Your task to perform on an android device: Go to Amazon Image 0: 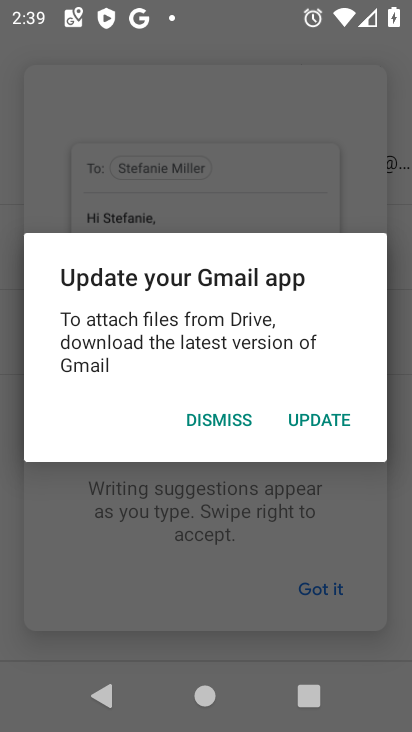
Step 0: press home button
Your task to perform on an android device: Go to Amazon Image 1: 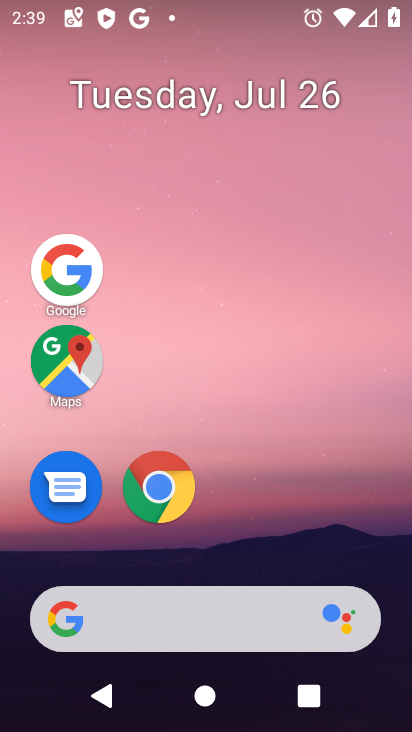
Step 1: drag from (210, 650) to (221, 283)
Your task to perform on an android device: Go to Amazon Image 2: 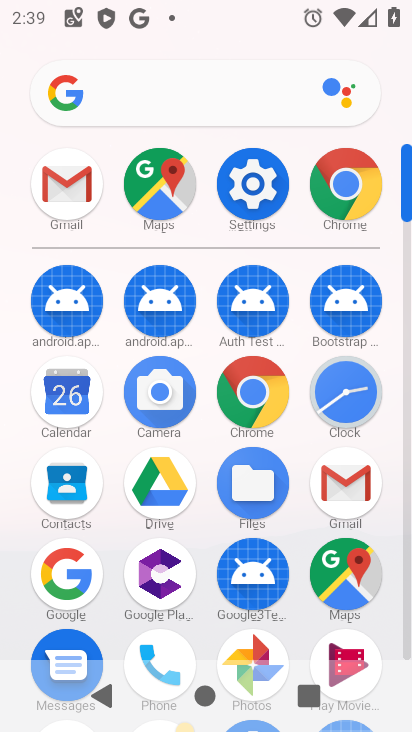
Step 2: drag from (266, 491) to (254, 192)
Your task to perform on an android device: Go to Amazon Image 3: 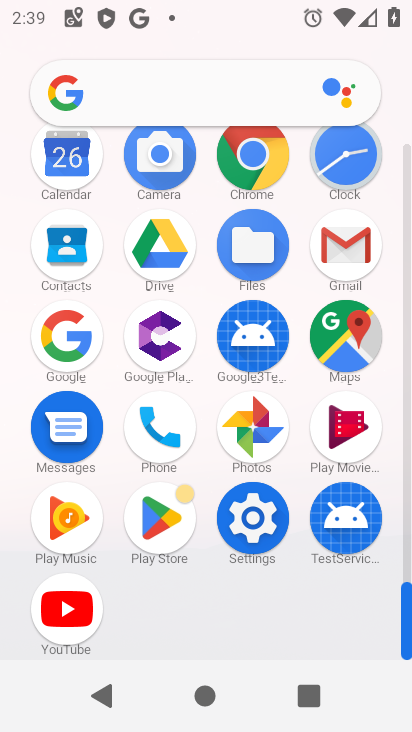
Step 3: click (236, 168)
Your task to perform on an android device: Go to Amazon Image 4: 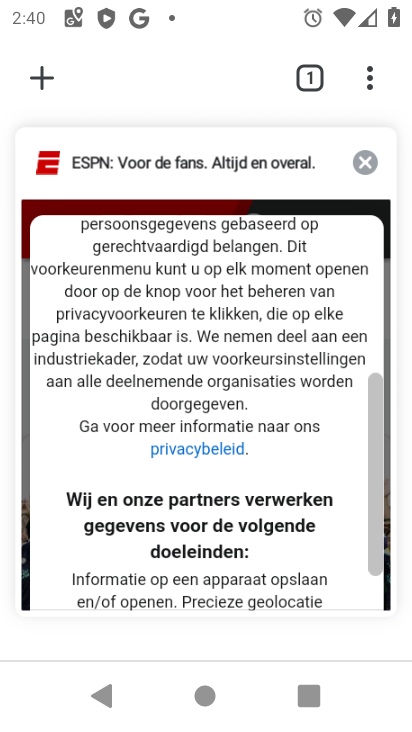
Step 4: click (40, 87)
Your task to perform on an android device: Go to Amazon Image 5: 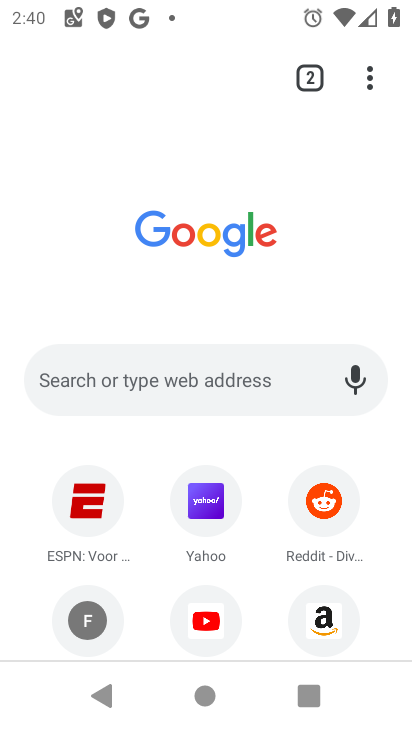
Step 5: click (322, 617)
Your task to perform on an android device: Go to Amazon Image 6: 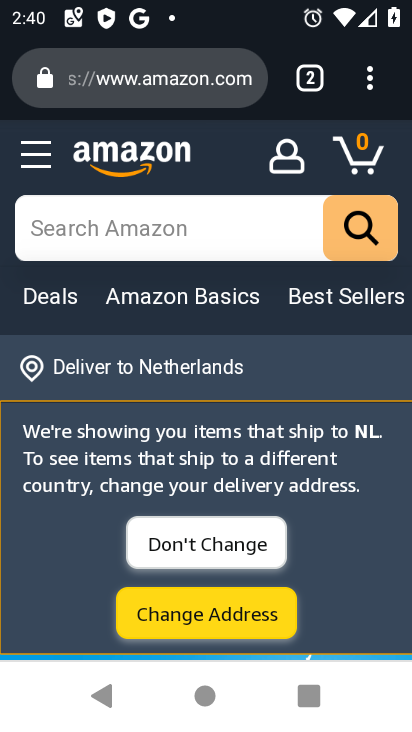
Step 6: task complete